Your task to perform on an android device: see sites visited before in the chrome app Image 0: 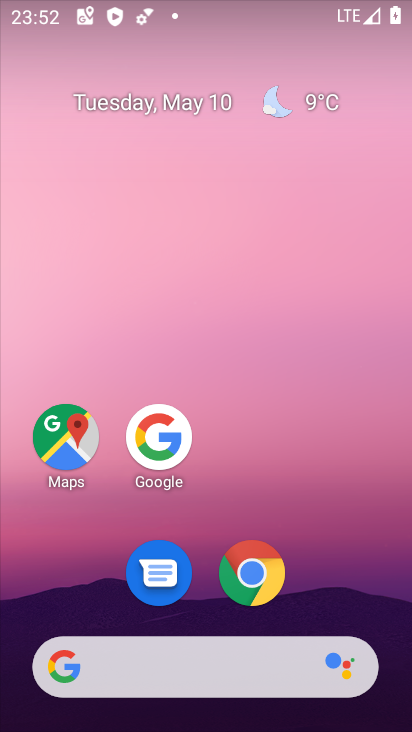
Step 0: press home button
Your task to perform on an android device: see sites visited before in the chrome app Image 1: 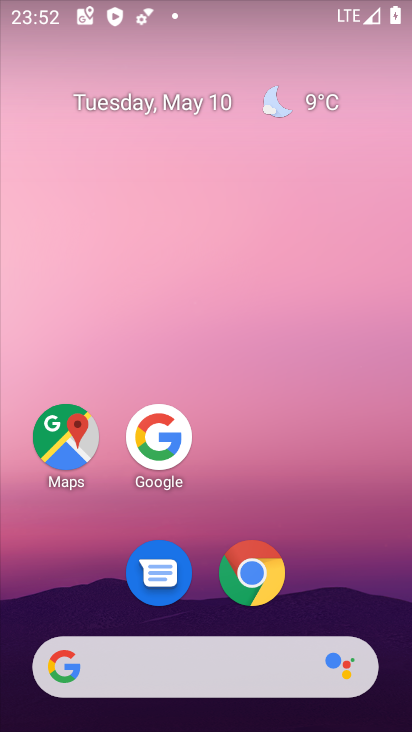
Step 1: drag from (178, 660) to (327, 142)
Your task to perform on an android device: see sites visited before in the chrome app Image 2: 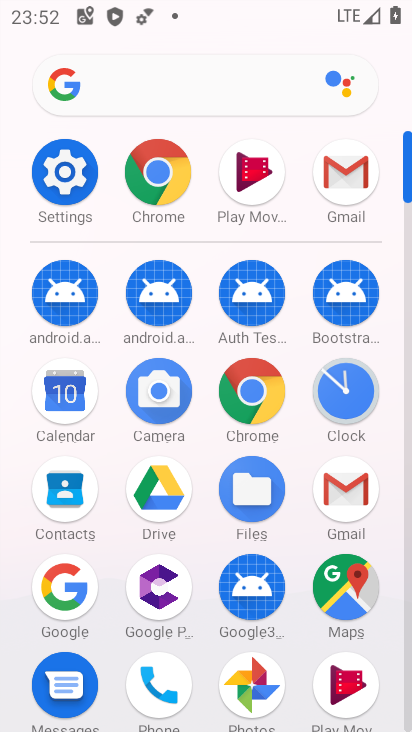
Step 2: click (161, 187)
Your task to perform on an android device: see sites visited before in the chrome app Image 3: 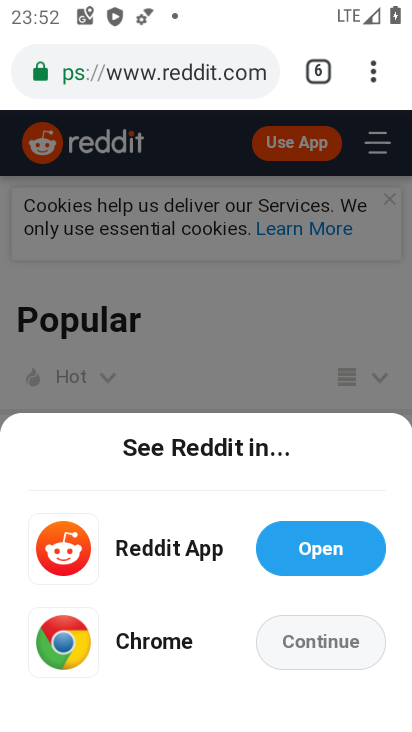
Step 3: task complete